Your task to perform on an android device: Search for pizza restaurants on Maps Image 0: 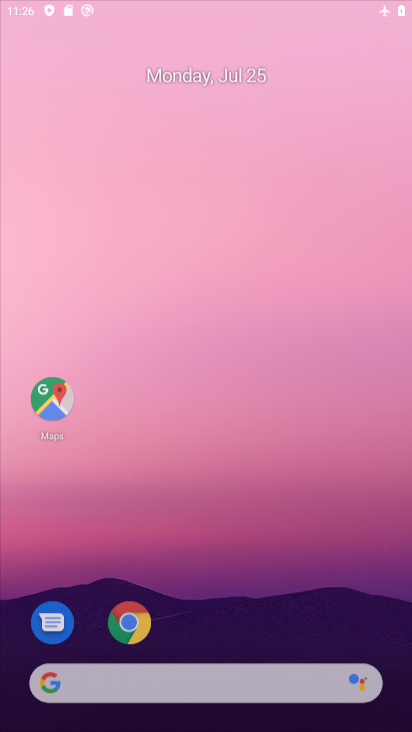
Step 0: click (120, 246)
Your task to perform on an android device: Search for pizza restaurants on Maps Image 1: 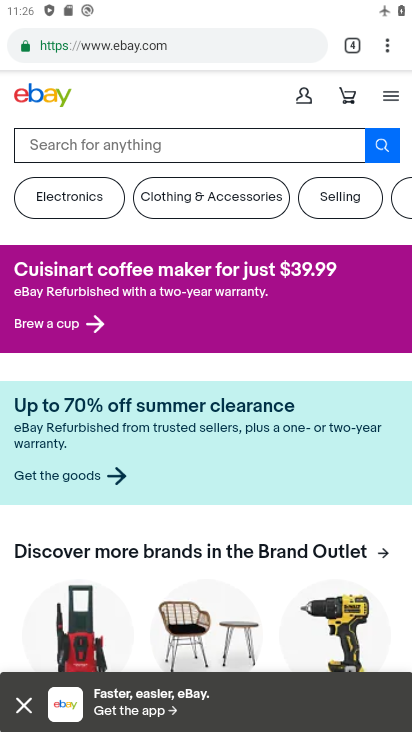
Step 1: drag from (231, 680) to (217, 165)
Your task to perform on an android device: Search for pizza restaurants on Maps Image 2: 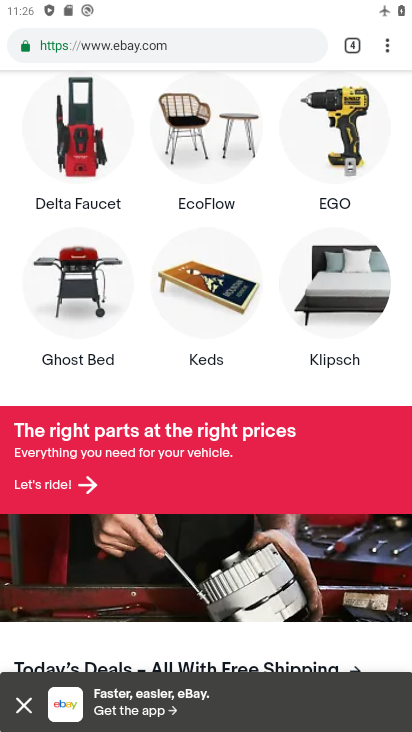
Step 2: drag from (385, 44) to (200, 80)
Your task to perform on an android device: Search for pizza restaurants on Maps Image 3: 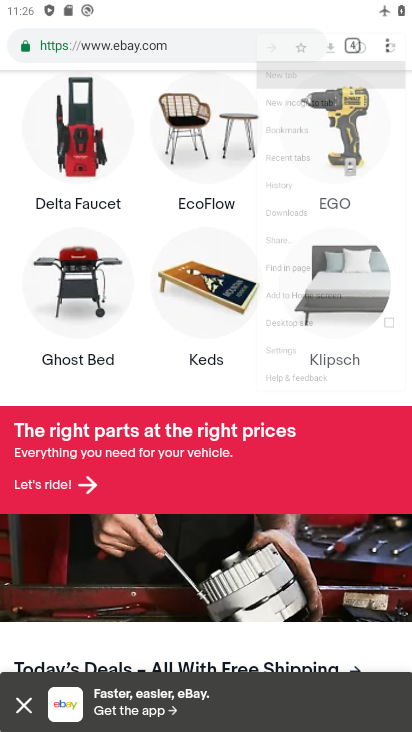
Step 3: click (209, 79)
Your task to perform on an android device: Search for pizza restaurants on Maps Image 4: 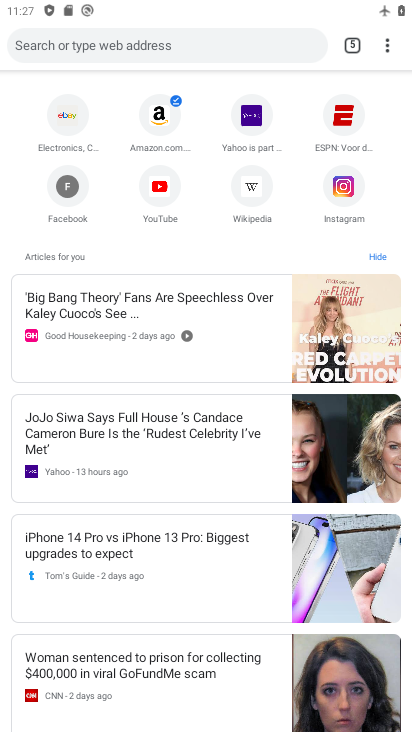
Step 4: press back button
Your task to perform on an android device: Search for pizza restaurants on Maps Image 5: 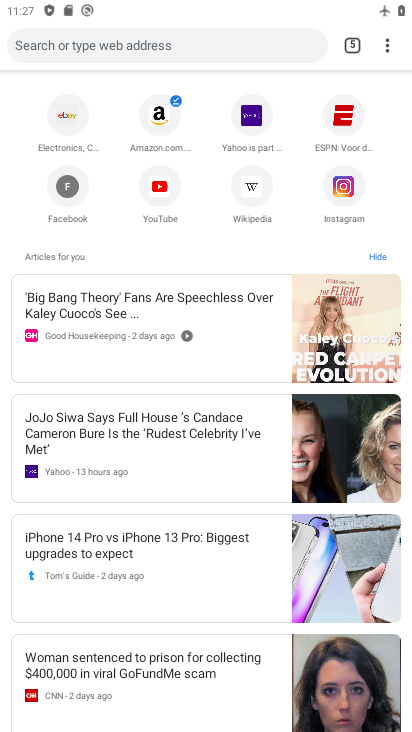
Step 5: press back button
Your task to perform on an android device: Search for pizza restaurants on Maps Image 6: 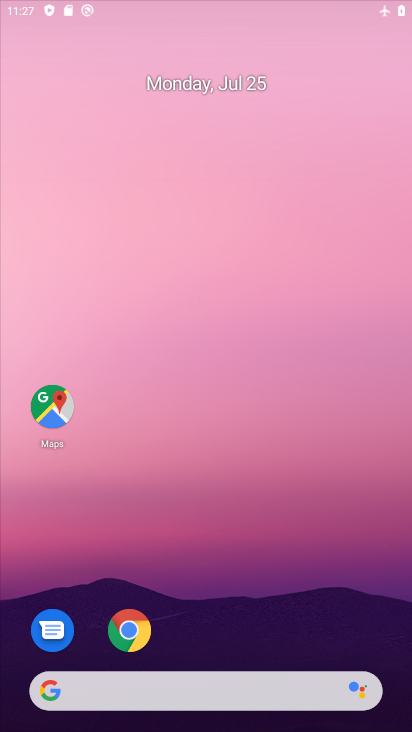
Step 6: press home button
Your task to perform on an android device: Search for pizza restaurants on Maps Image 7: 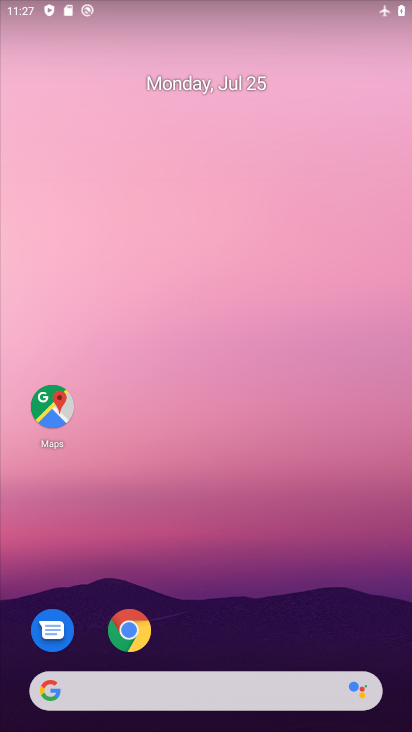
Step 7: drag from (240, 690) to (245, 344)
Your task to perform on an android device: Search for pizza restaurants on Maps Image 8: 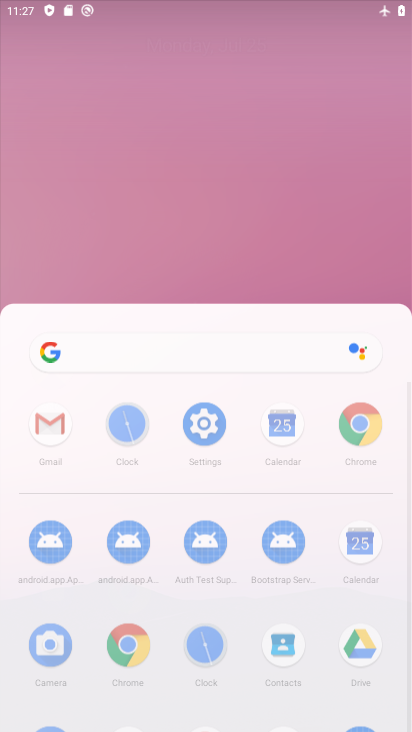
Step 8: drag from (211, 570) to (179, 378)
Your task to perform on an android device: Search for pizza restaurants on Maps Image 9: 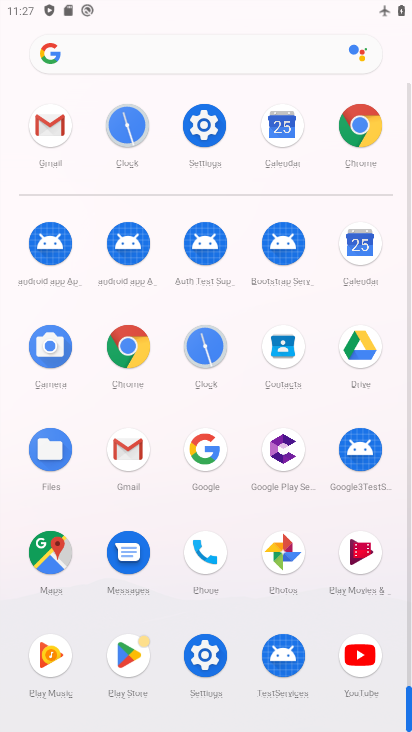
Step 9: click (50, 551)
Your task to perform on an android device: Search for pizza restaurants on Maps Image 10: 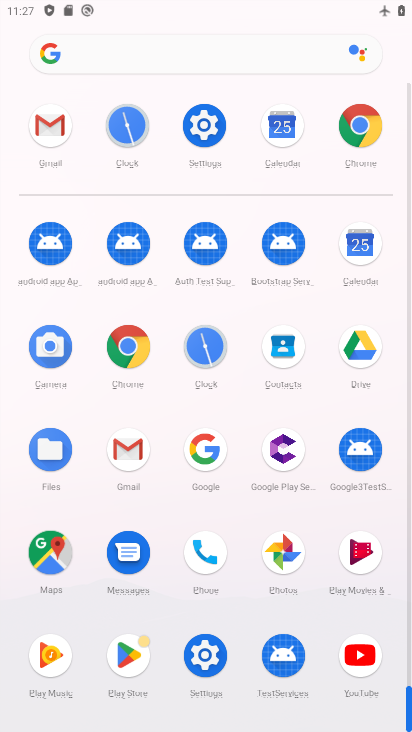
Step 10: click (54, 548)
Your task to perform on an android device: Search for pizza restaurants on Maps Image 11: 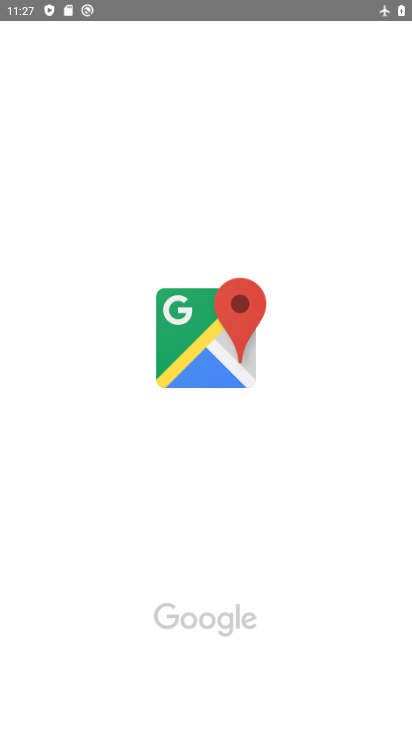
Step 11: click (57, 548)
Your task to perform on an android device: Search for pizza restaurants on Maps Image 12: 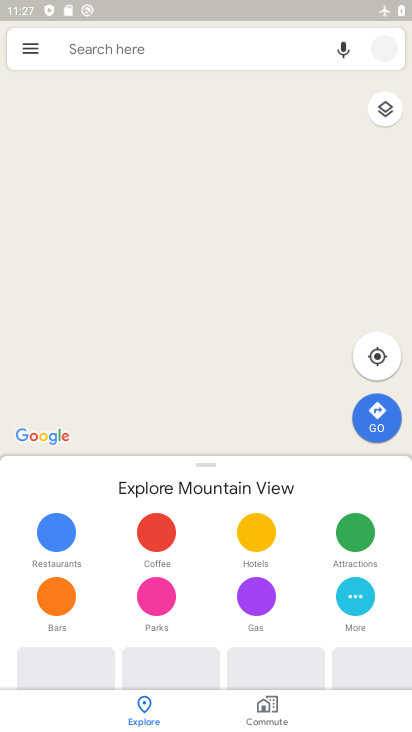
Step 12: click (72, 48)
Your task to perform on an android device: Search for pizza restaurants on Maps Image 13: 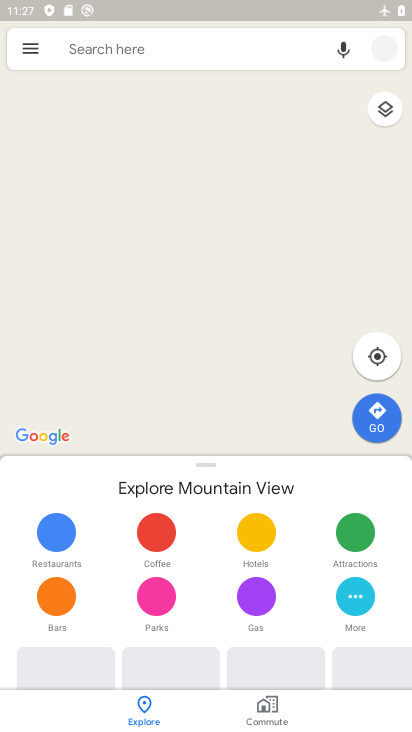
Step 13: click (77, 49)
Your task to perform on an android device: Search for pizza restaurants on Maps Image 14: 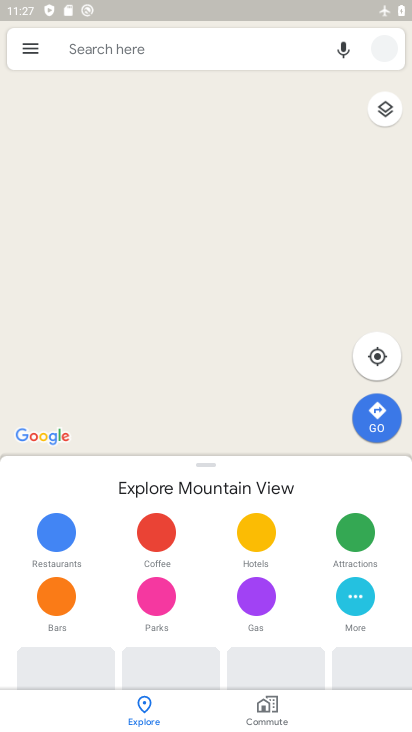
Step 14: click (79, 51)
Your task to perform on an android device: Search for pizza restaurants on Maps Image 15: 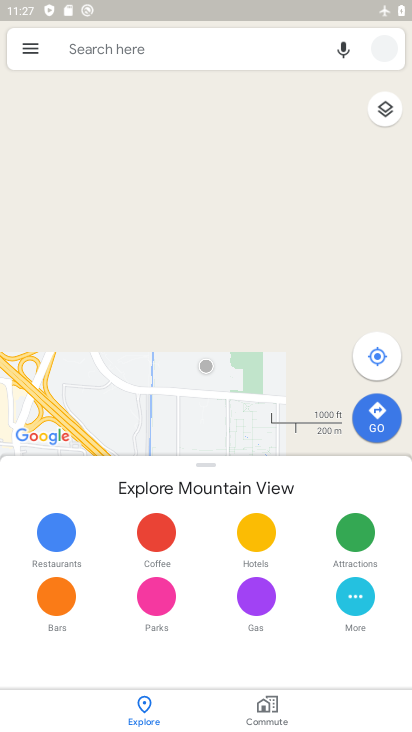
Step 15: click (90, 50)
Your task to perform on an android device: Search for pizza restaurants on Maps Image 16: 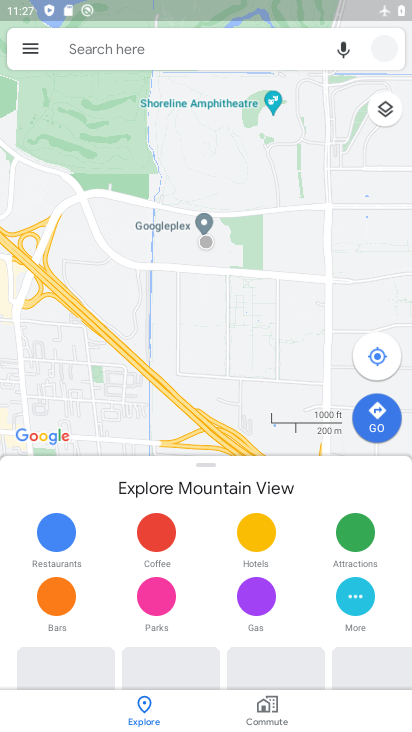
Step 16: click (92, 51)
Your task to perform on an android device: Search for pizza restaurants on Maps Image 17: 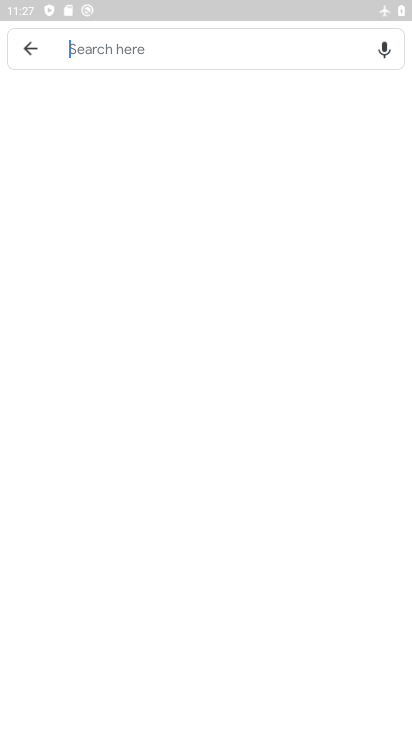
Step 17: click (92, 47)
Your task to perform on an android device: Search for pizza restaurants on Maps Image 18: 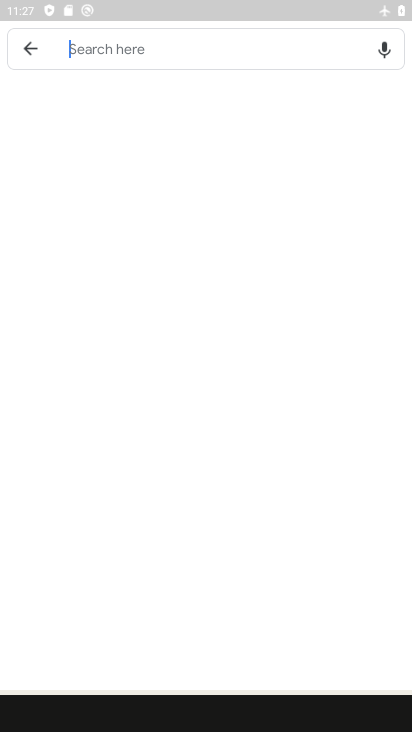
Step 18: click (99, 36)
Your task to perform on an android device: Search for pizza restaurants on Maps Image 19: 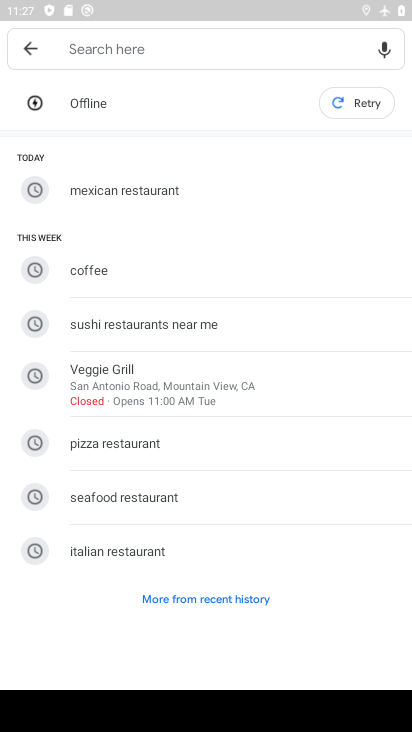
Step 19: type "pizza restaurants"
Your task to perform on an android device: Search for pizza restaurants on Maps Image 20: 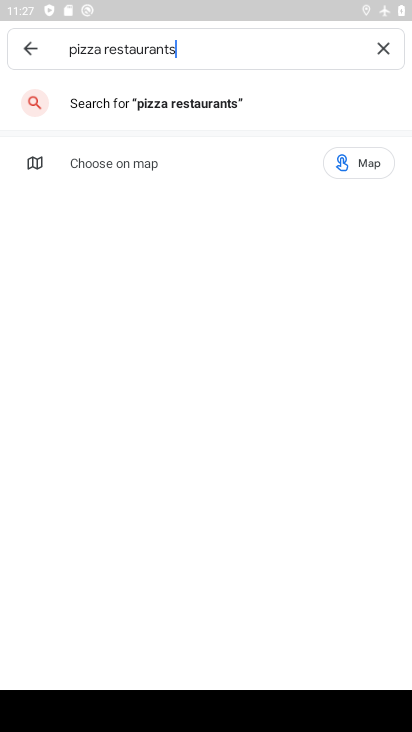
Step 20: click (190, 109)
Your task to perform on an android device: Search for pizza restaurants on Maps Image 21: 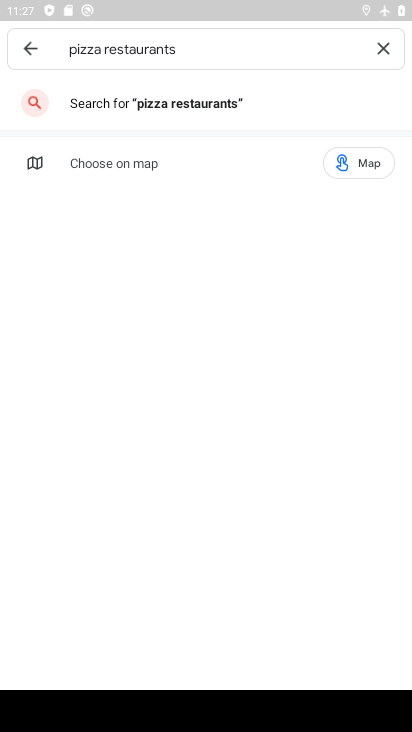
Step 21: click (190, 109)
Your task to perform on an android device: Search for pizza restaurants on Maps Image 22: 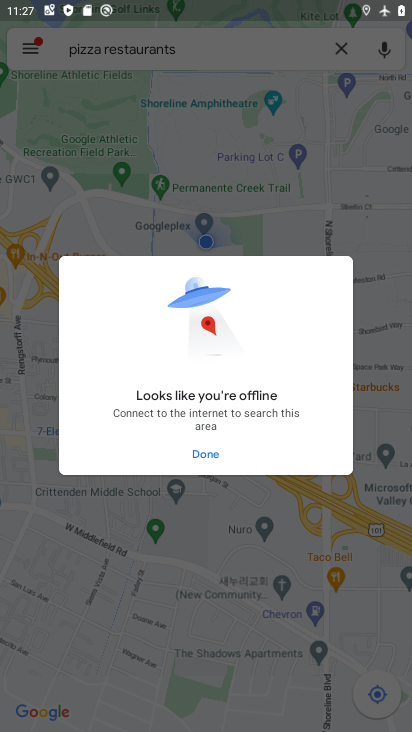
Step 22: task complete